Your task to perform on an android device: Open the calendar and show me this week's events? Image 0: 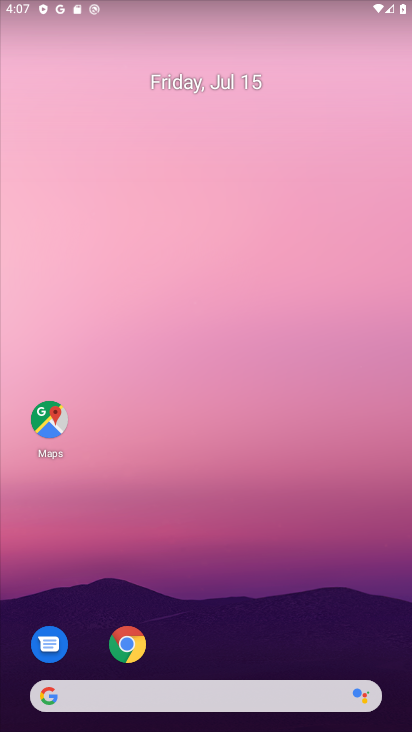
Step 0: drag from (213, 597) to (198, 44)
Your task to perform on an android device: Open the calendar and show me this week's events? Image 1: 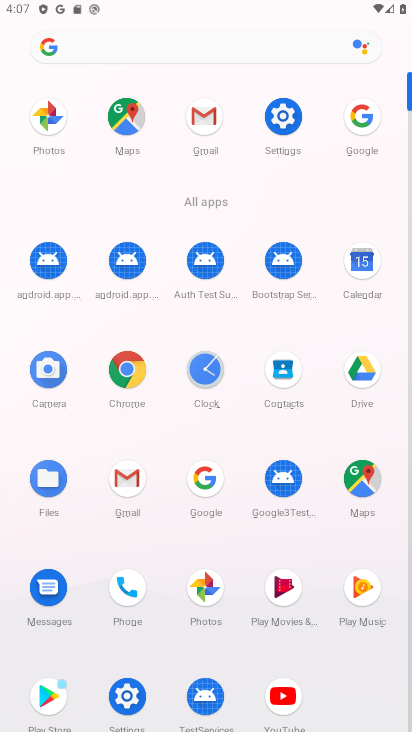
Step 1: click (362, 270)
Your task to perform on an android device: Open the calendar and show me this week's events? Image 2: 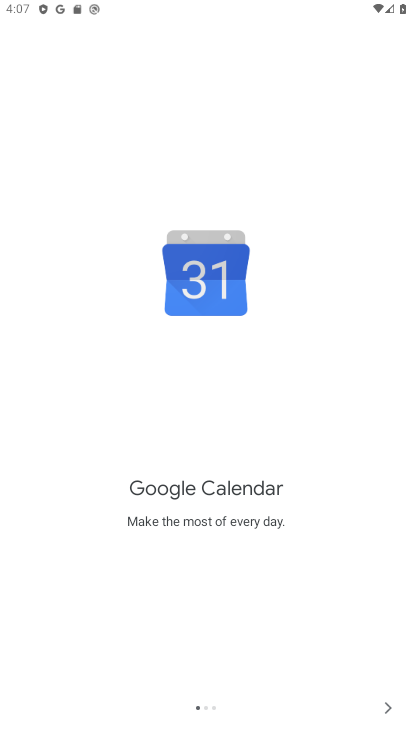
Step 2: click (388, 707)
Your task to perform on an android device: Open the calendar and show me this week's events? Image 3: 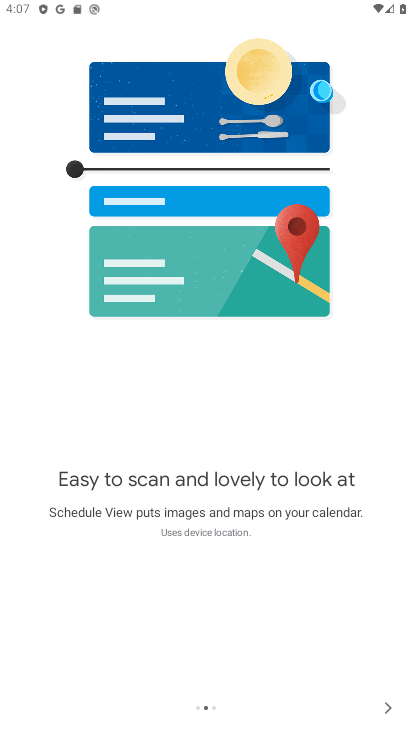
Step 3: click (388, 707)
Your task to perform on an android device: Open the calendar and show me this week's events? Image 4: 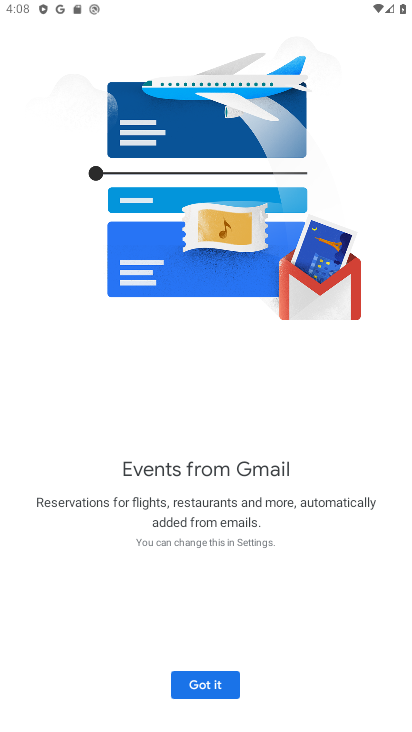
Step 4: click (196, 685)
Your task to perform on an android device: Open the calendar and show me this week's events? Image 5: 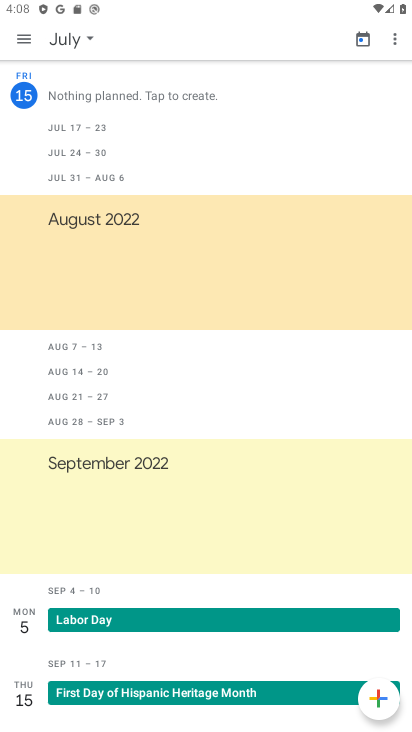
Step 5: click (14, 49)
Your task to perform on an android device: Open the calendar and show me this week's events? Image 6: 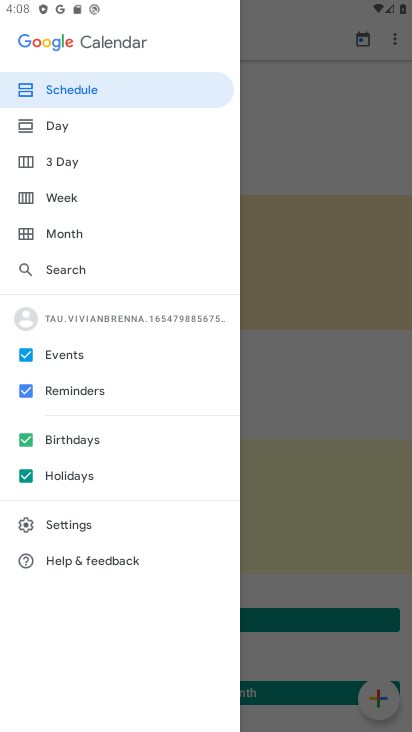
Step 6: click (53, 206)
Your task to perform on an android device: Open the calendar and show me this week's events? Image 7: 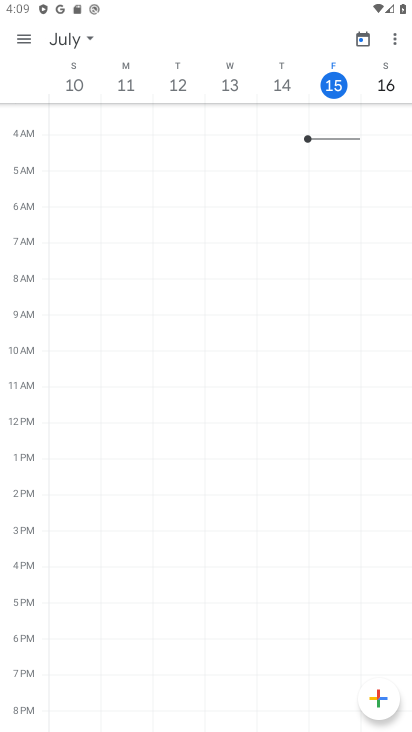
Step 7: task complete